Your task to perform on an android device: Open the web browser Image 0: 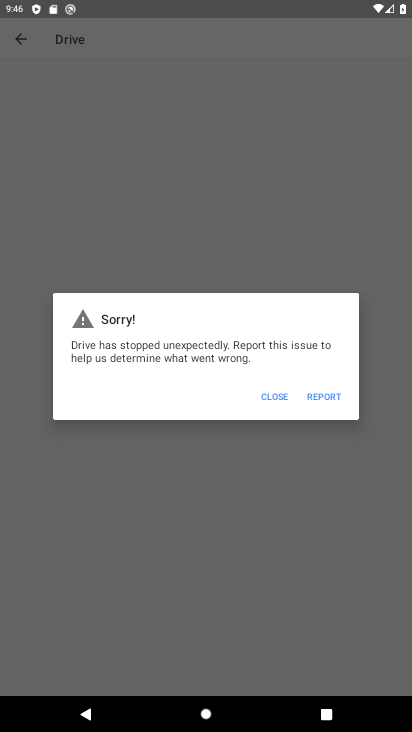
Step 0: press home button
Your task to perform on an android device: Open the web browser Image 1: 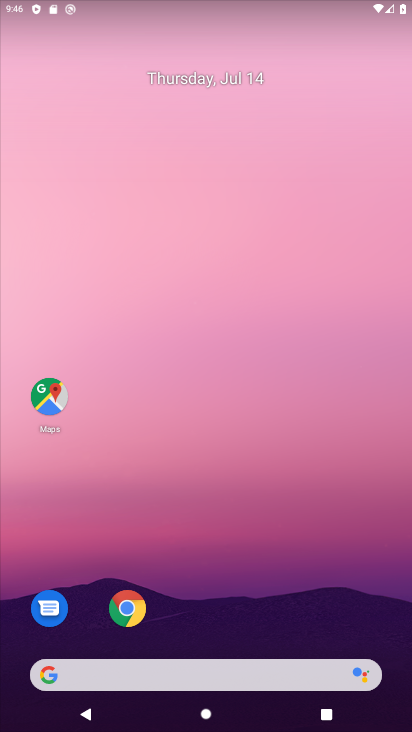
Step 1: click (117, 619)
Your task to perform on an android device: Open the web browser Image 2: 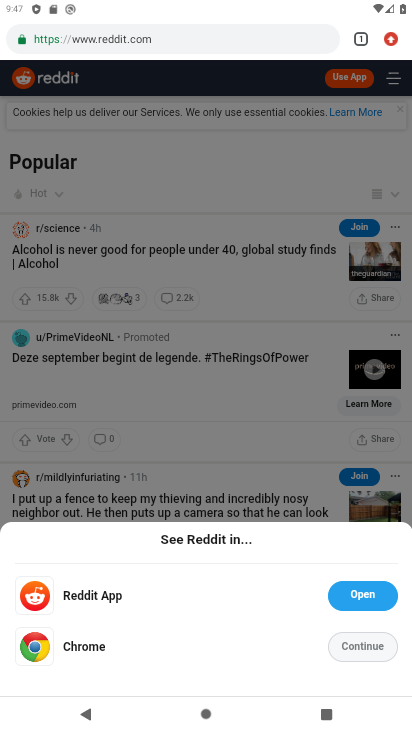
Step 2: task complete